Your task to perform on an android device: Open the web browser Image 0: 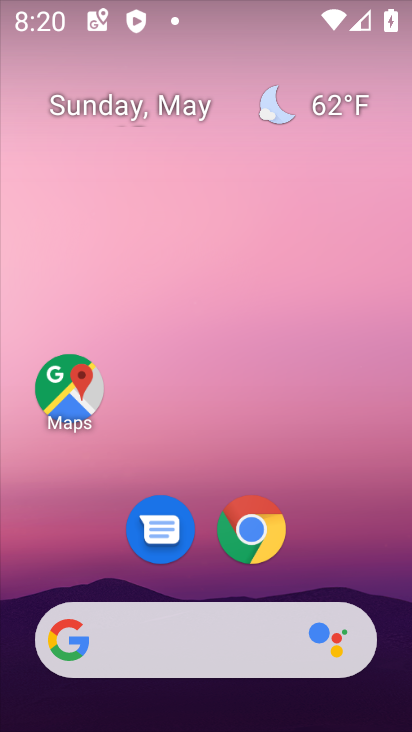
Step 0: drag from (387, 563) to (380, 100)
Your task to perform on an android device: Open the web browser Image 1: 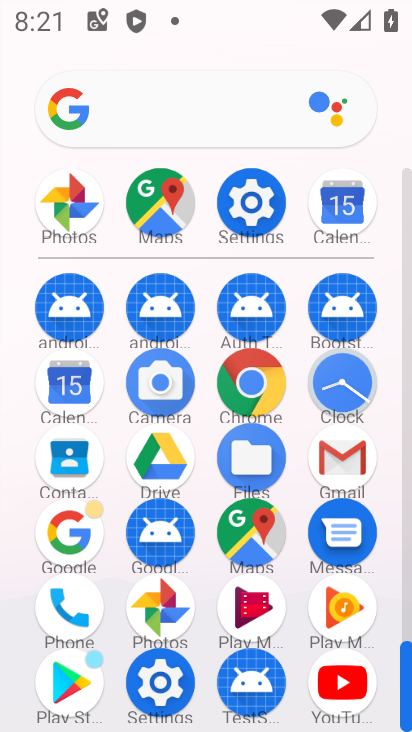
Step 1: click (253, 408)
Your task to perform on an android device: Open the web browser Image 2: 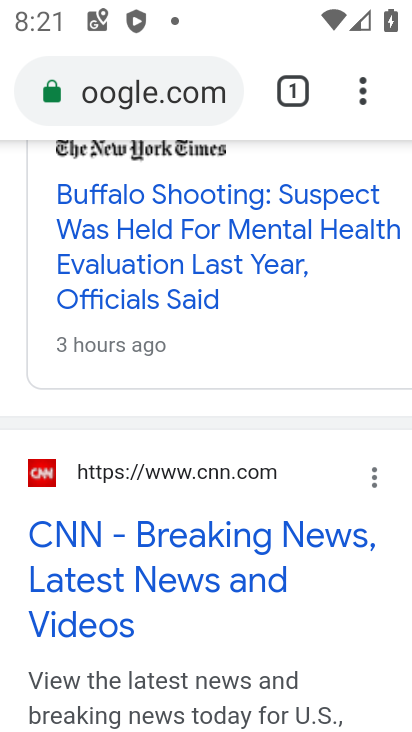
Step 2: task complete